Your task to perform on an android device: see tabs open on other devices in the chrome app Image 0: 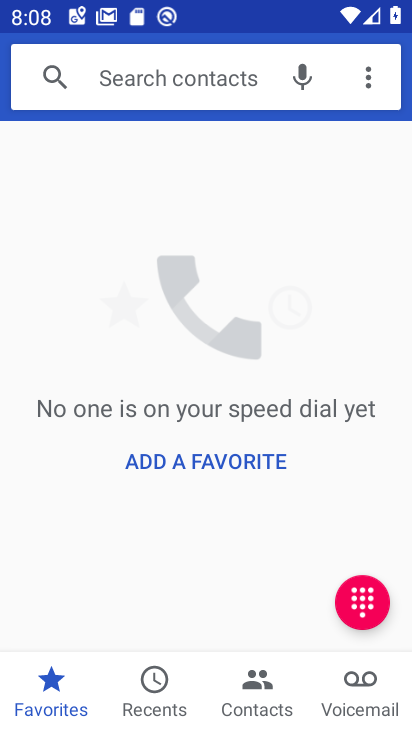
Step 0: press home button
Your task to perform on an android device: see tabs open on other devices in the chrome app Image 1: 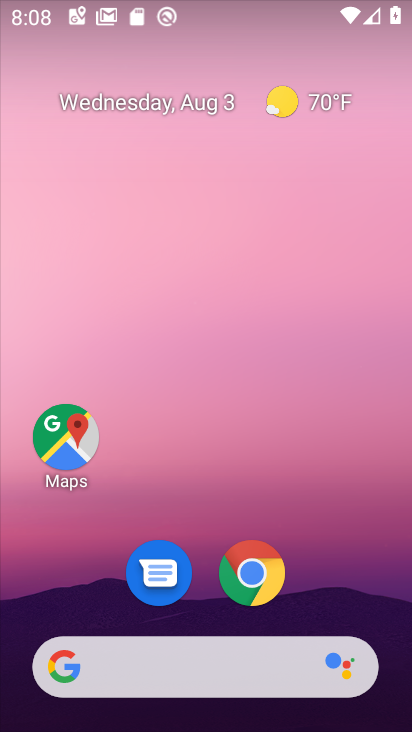
Step 1: click (247, 584)
Your task to perform on an android device: see tabs open on other devices in the chrome app Image 2: 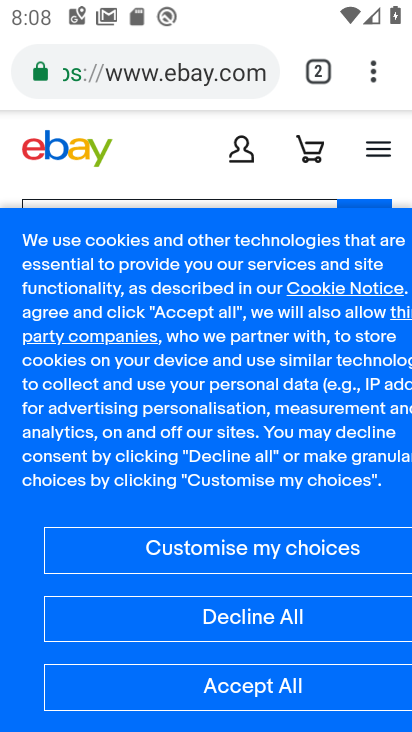
Step 2: click (376, 70)
Your task to perform on an android device: see tabs open on other devices in the chrome app Image 3: 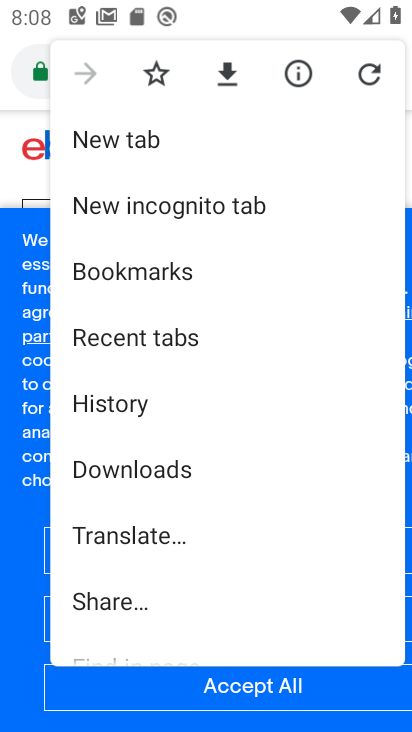
Step 3: click (160, 344)
Your task to perform on an android device: see tabs open on other devices in the chrome app Image 4: 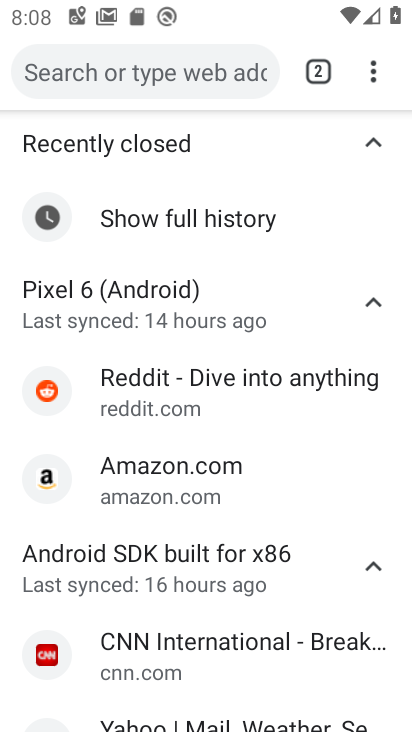
Step 4: task complete